Your task to perform on an android device: Toggle the flashlight Image 0: 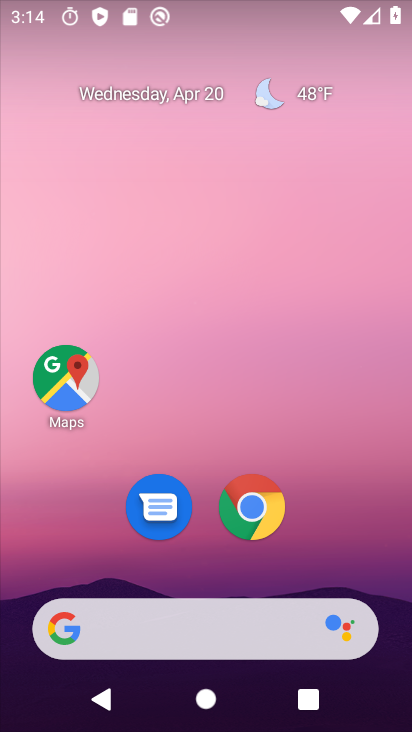
Step 0: drag from (200, 605) to (192, 113)
Your task to perform on an android device: Toggle the flashlight Image 1: 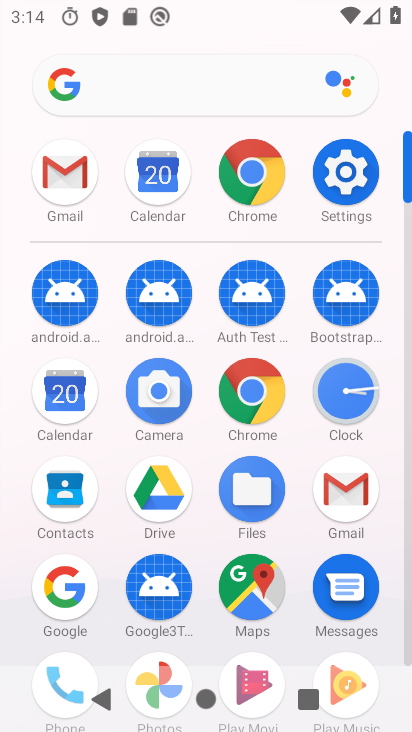
Step 1: task complete